Your task to perform on an android device: Open the Play Movies app and select the watchlist tab. Image 0: 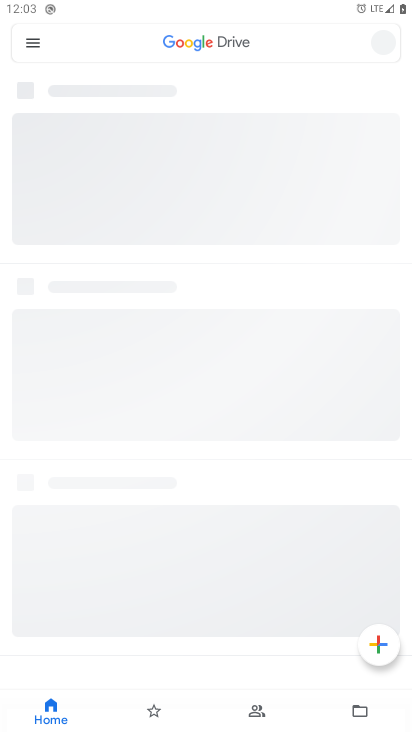
Step 0: press home button
Your task to perform on an android device: Open the Play Movies app and select the watchlist tab. Image 1: 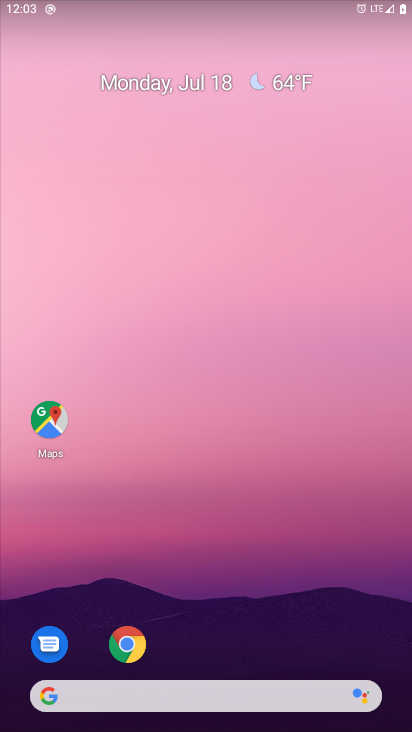
Step 1: drag from (277, 499) to (312, 89)
Your task to perform on an android device: Open the Play Movies app and select the watchlist tab. Image 2: 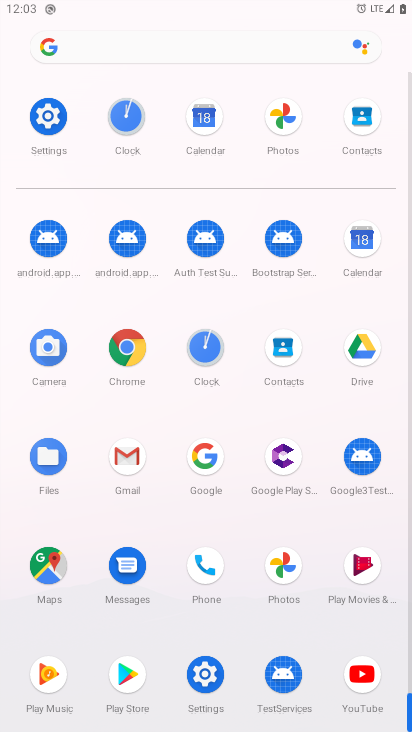
Step 2: click (347, 563)
Your task to perform on an android device: Open the Play Movies app and select the watchlist tab. Image 3: 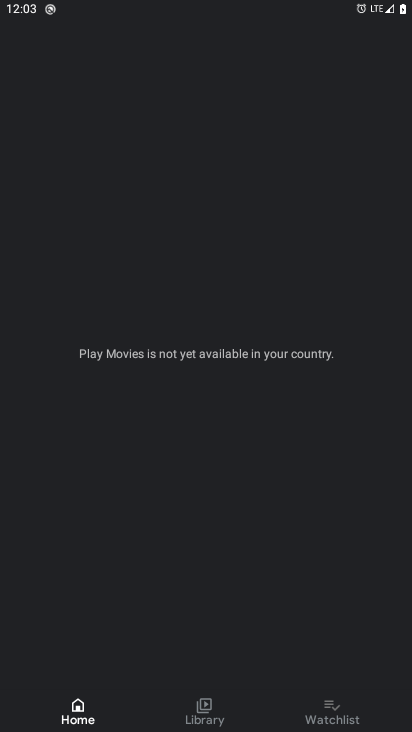
Step 3: click (324, 712)
Your task to perform on an android device: Open the Play Movies app and select the watchlist tab. Image 4: 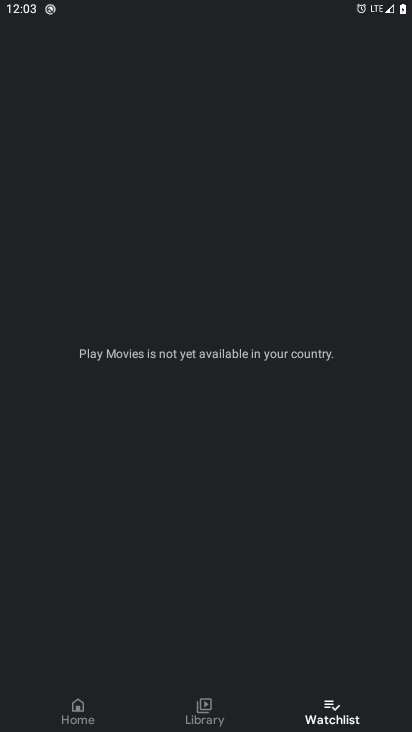
Step 4: task complete